Your task to perform on an android device: turn smart compose on in the gmail app Image 0: 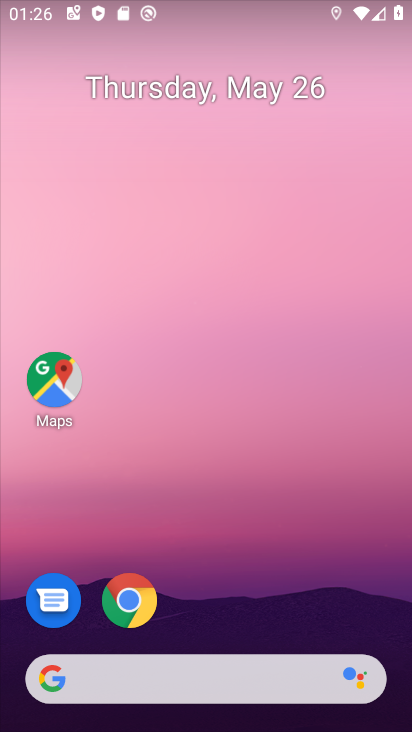
Step 0: drag from (296, 566) to (246, 5)
Your task to perform on an android device: turn smart compose on in the gmail app Image 1: 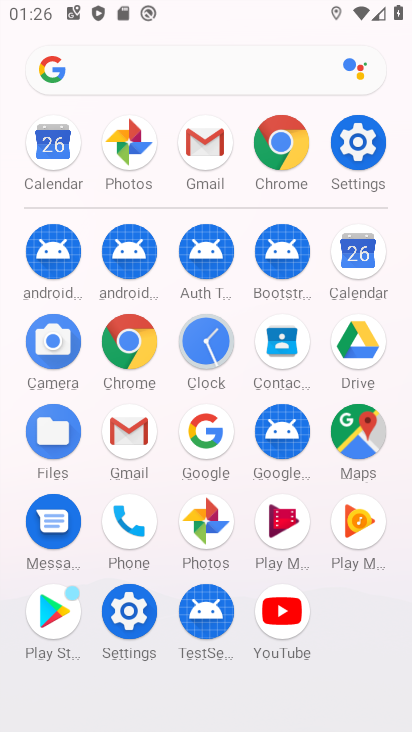
Step 1: click (202, 147)
Your task to perform on an android device: turn smart compose on in the gmail app Image 2: 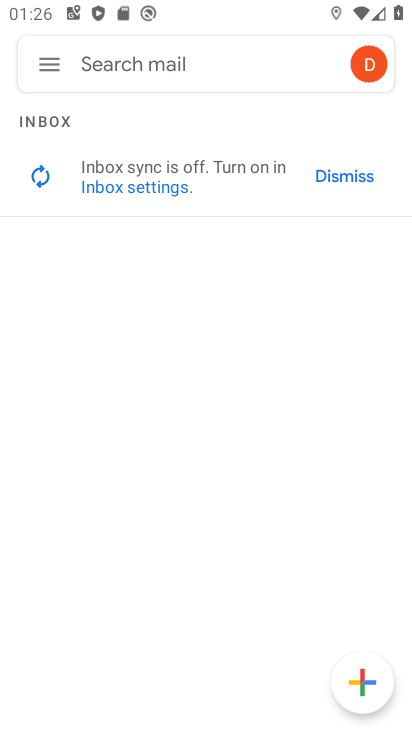
Step 2: click (62, 64)
Your task to perform on an android device: turn smart compose on in the gmail app Image 3: 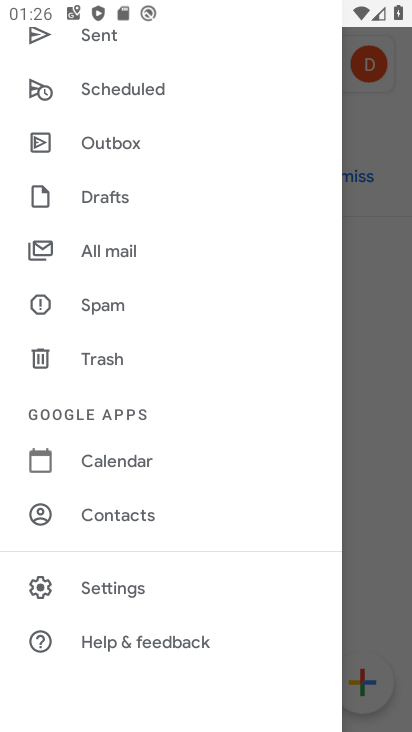
Step 3: click (116, 579)
Your task to perform on an android device: turn smart compose on in the gmail app Image 4: 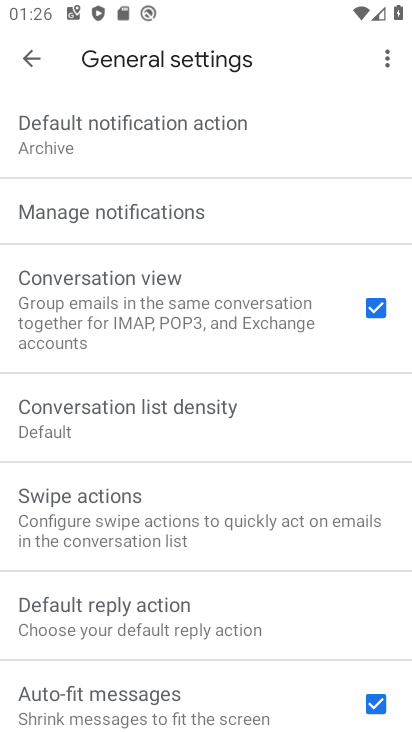
Step 4: drag from (220, 596) to (185, 41)
Your task to perform on an android device: turn smart compose on in the gmail app Image 5: 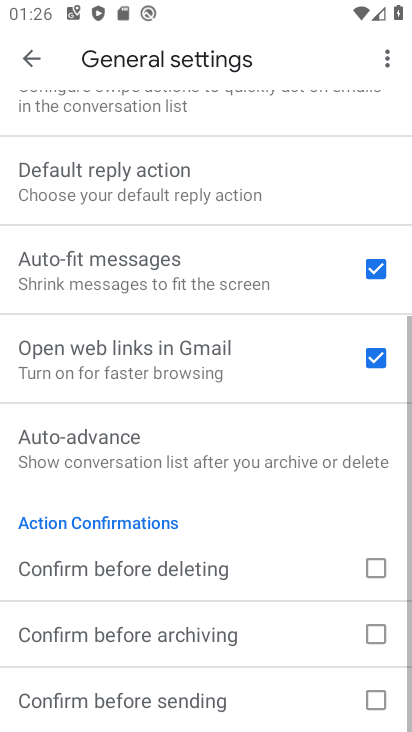
Step 5: drag from (189, 486) to (186, 35)
Your task to perform on an android device: turn smart compose on in the gmail app Image 6: 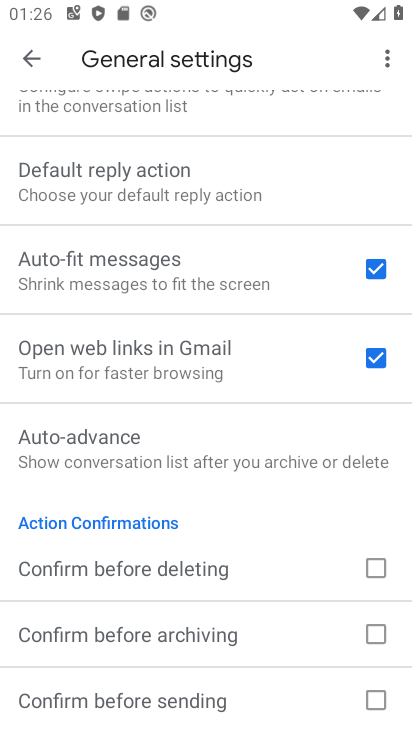
Step 6: drag from (233, 183) to (262, 580)
Your task to perform on an android device: turn smart compose on in the gmail app Image 7: 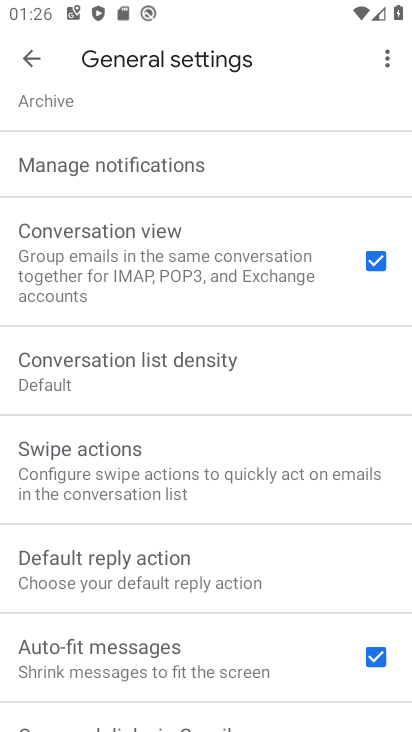
Step 7: drag from (240, 211) to (281, 633)
Your task to perform on an android device: turn smart compose on in the gmail app Image 8: 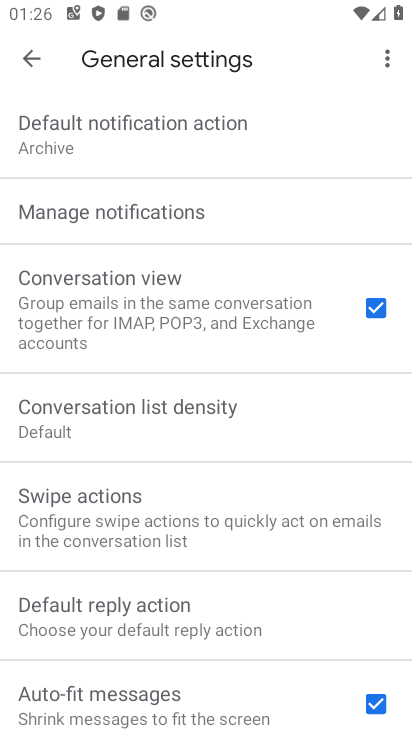
Step 8: click (124, 136)
Your task to perform on an android device: turn smart compose on in the gmail app Image 9: 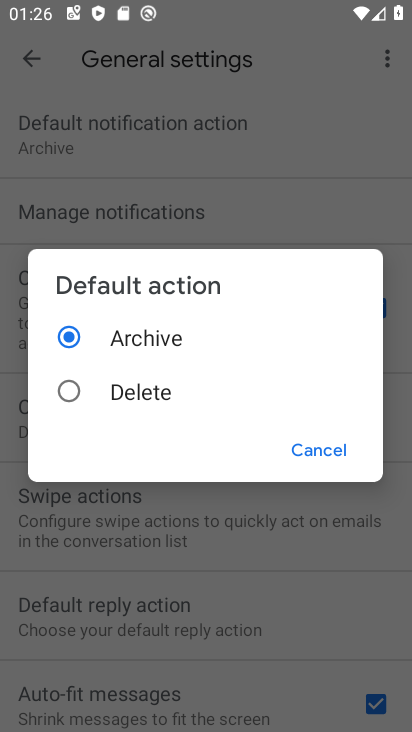
Step 9: click (322, 469)
Your task to perform on an android device: turn smart compose on in the gmail app Image 10: 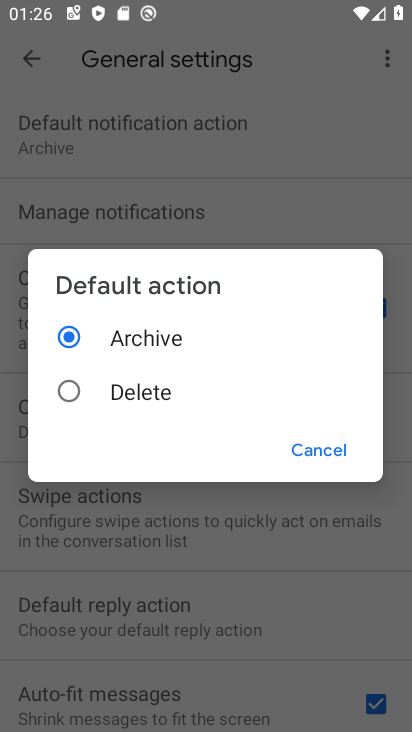
Step 10: click (324, 463)
Your task to perform on an android device: turn smart compose on in the gmail app Image 11: 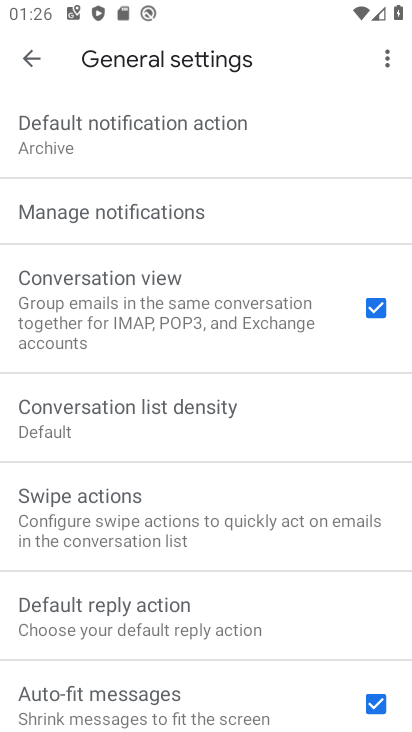
Step 11: click (324, 460)
Your task to perform on an android device: turn smart compose on in the gmail app Image 12: 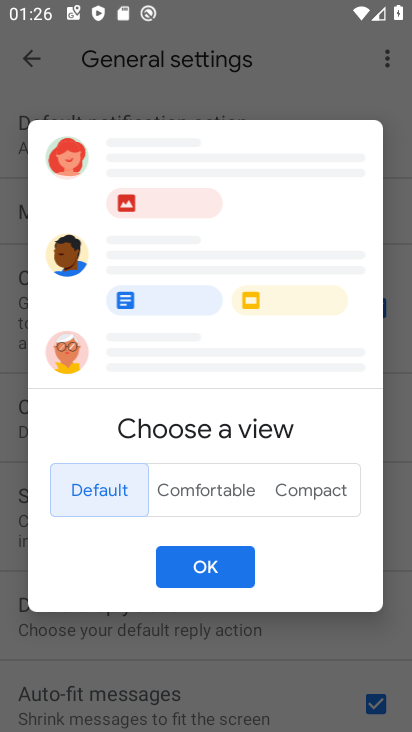
Step 12: press back button
Your task to perform on an android device: turn smart compose on in the gmail app Image 13: 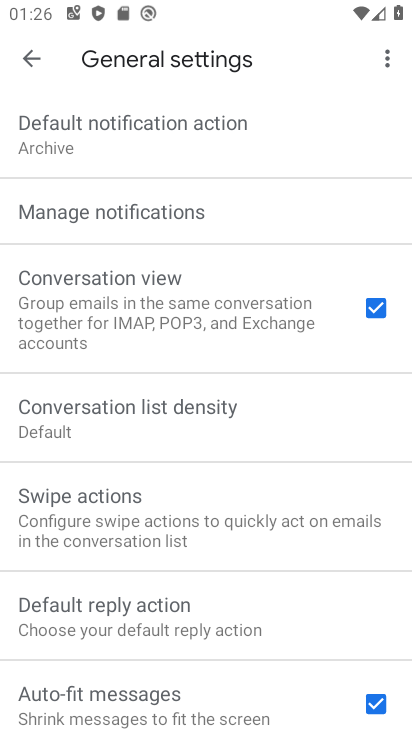
Step 13: press back button
Your task to perform on an android device: turn smart compose on in the gmail app Image 14: 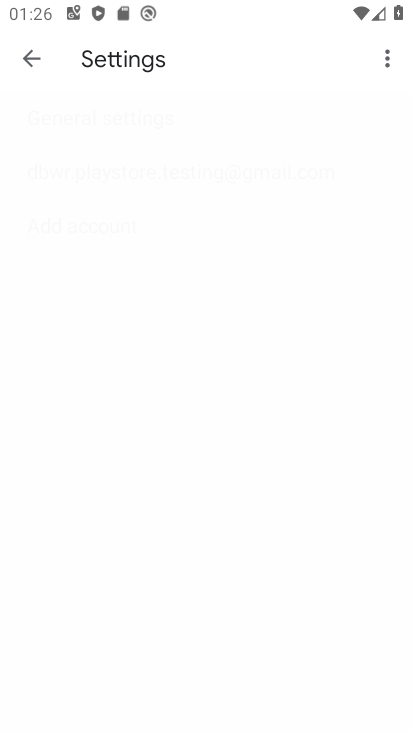
Step 14: press back button
Your task to perform on an android device: turn smart compose on in the gmail app Image 15: 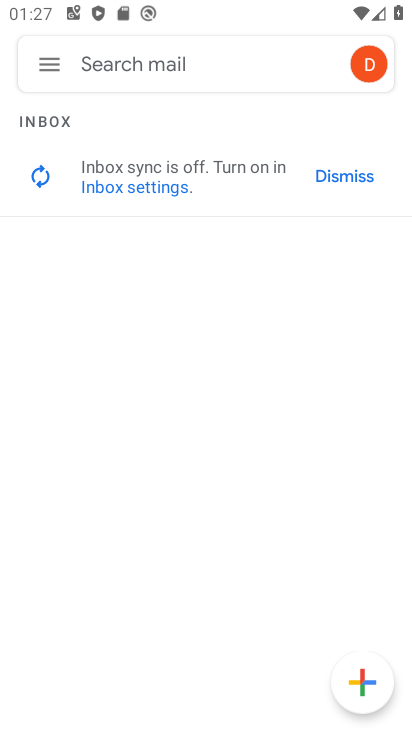
Step 15: click (48, 66)
Your task to perform on an android device: turn smart compose on in the gmail app Image 16: 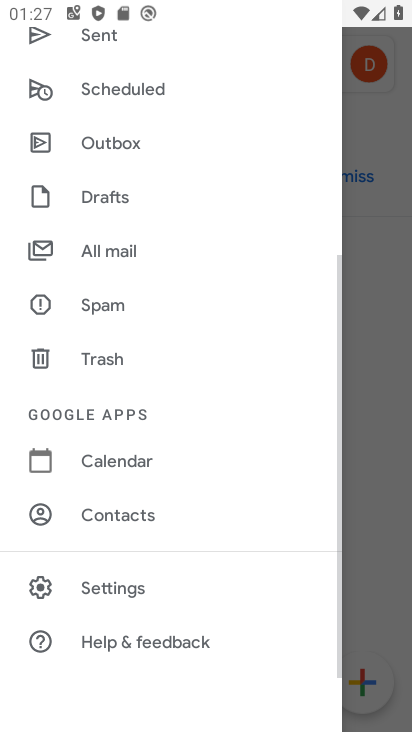
Step 16: drag from (219, 76) to (267, 593)
Your task to perform on an android device: turn smart compose on in the gmail app Image 17: 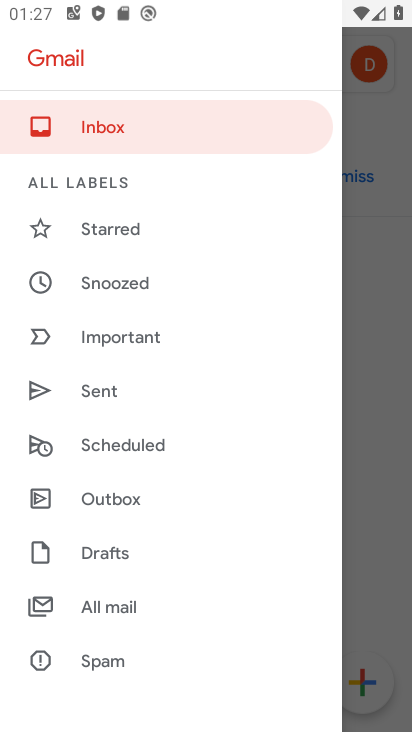
Step 17: drag from (232, 591) to (147, 109)
Your task to perform on an android device: turn smart compose on in the gmail app Image 18: 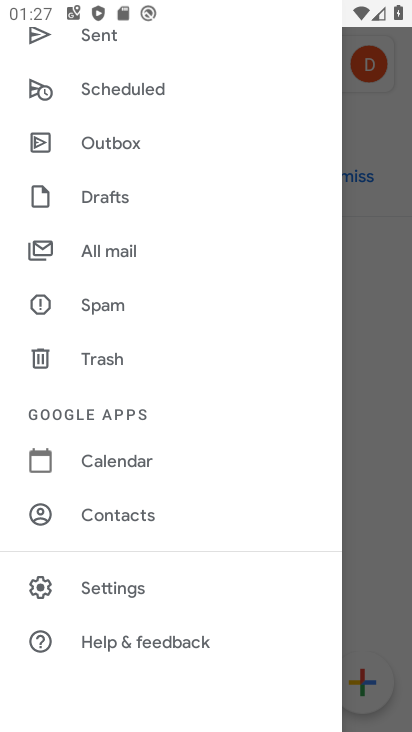
Step 18: click (167, 575)
Your task to perform on an android device: turn smart compose on in the gmail app Image 19: 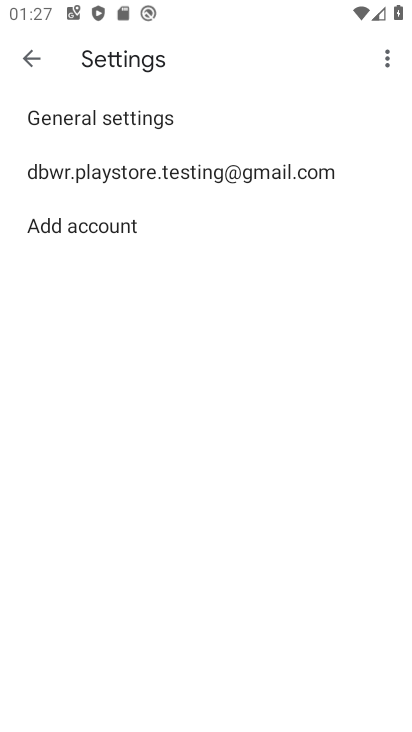
Step 19: click (170, 117)
Your task to perform on an android device: turn smart compose on in the gmail app Image 20: 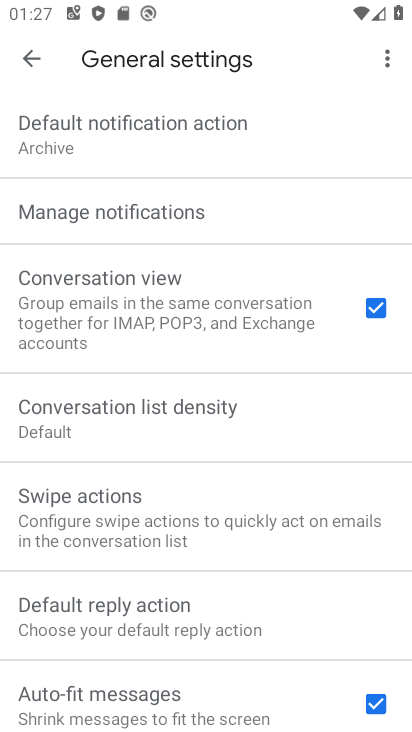
Step 20: task complete